Your task to perform on an android device: Open location settings Image 0: 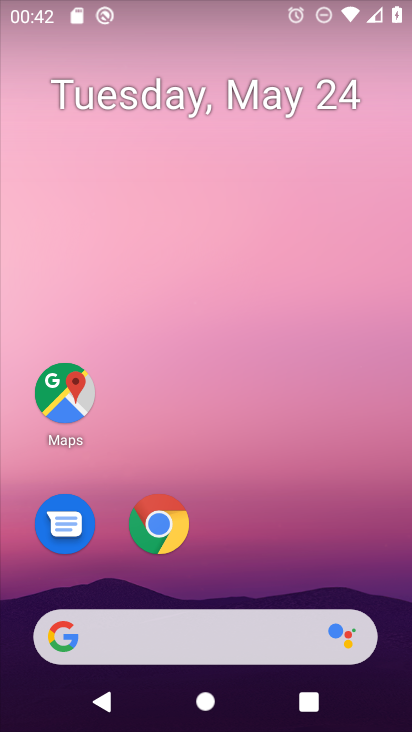
Step 0: drag from (233, 574) to (236, 188)
Your task to perform on an android device: Open location settings Image 1: 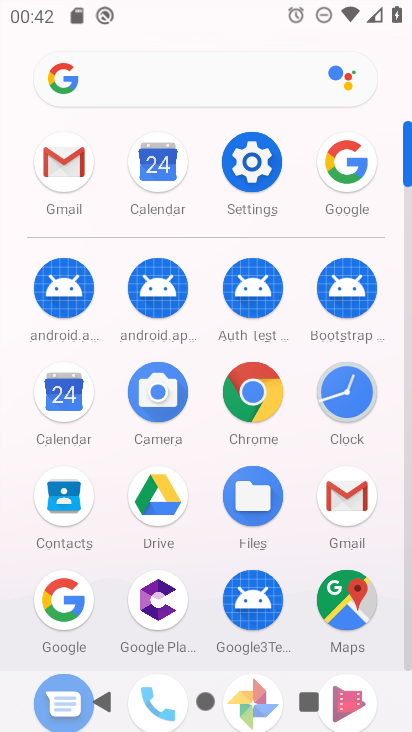
Step 1: click (257, 172)
Your task to perform on an android device: Open location settings Image 2: 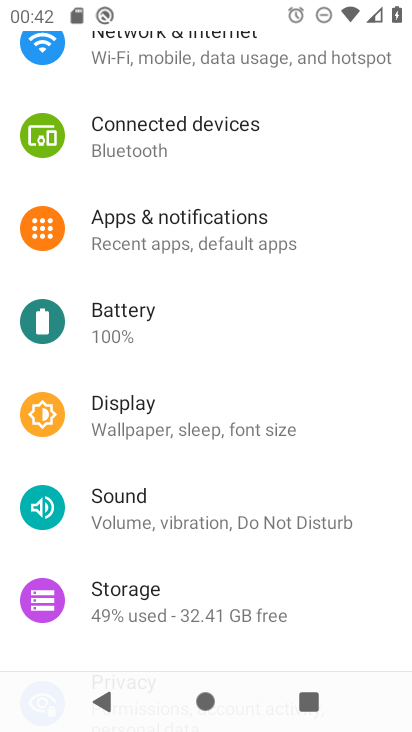
Step 2: drag from (218, 520) to (225, 198)
Your task to perform on an android device: Open location settings Image 3: 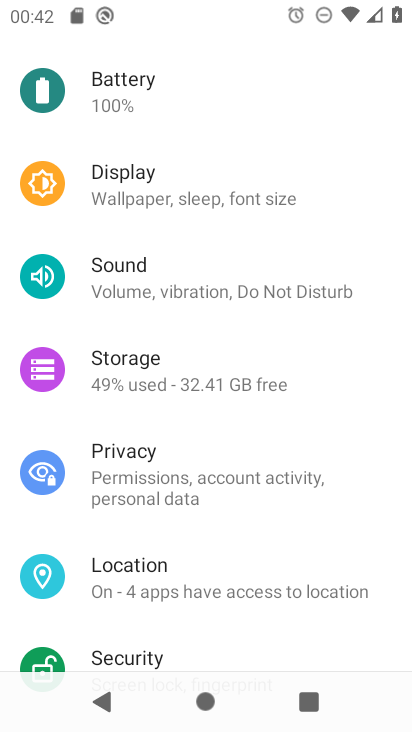
Step 3: click (206, 555)
Your task to perform on an android device: Open location settings Image 4: 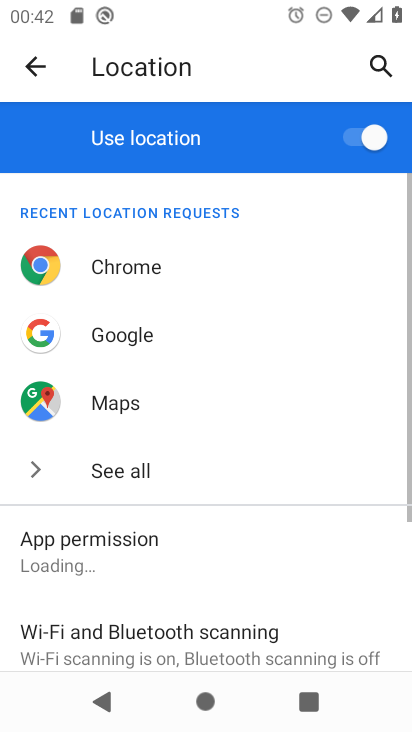
Step 4: drag from (239, 535) to (242, 227)
Your task to perform on an android device: Open location settings Image 5: 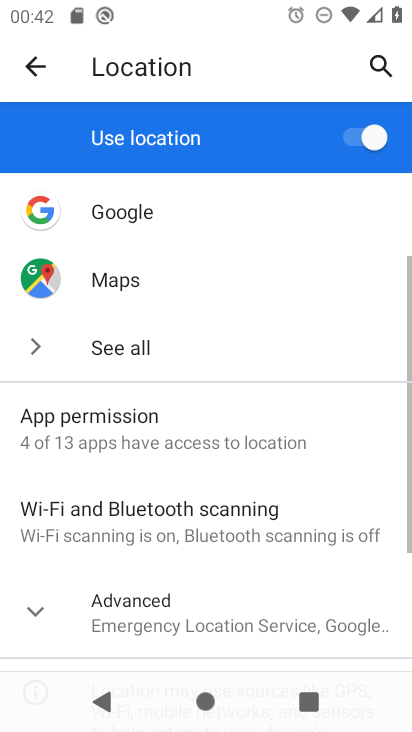
Step 5: drag from (222, 546) to (212, 360)
Your task to perform on an android device: Open location settings Image 6: 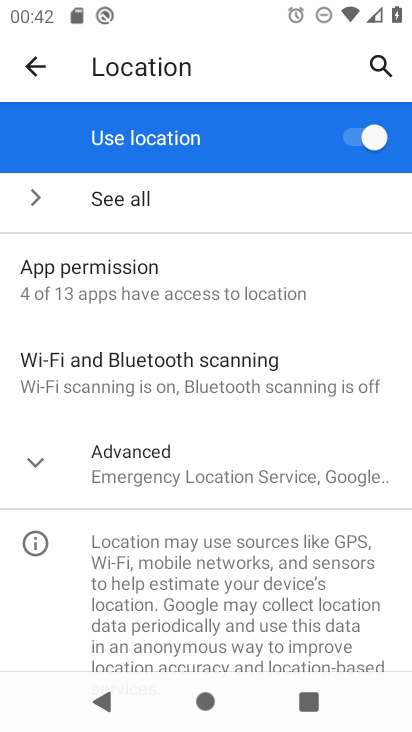
Step 6: click (173, 482)
Your task to perform on an android device: Open location settings Image 7: 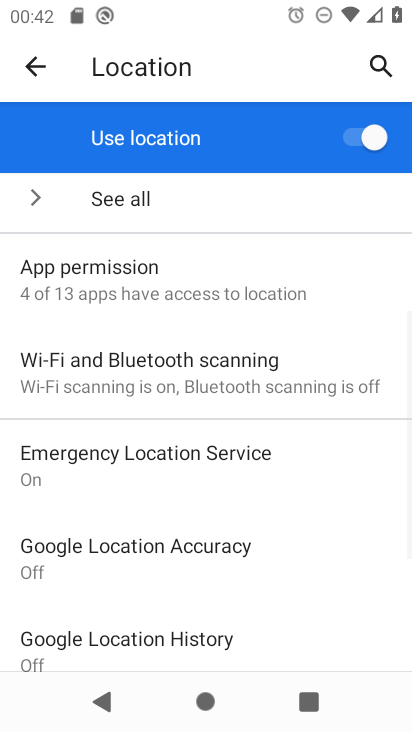
Step 7: task complete